Your task to perform on an android device: Go to Maps Image 0: 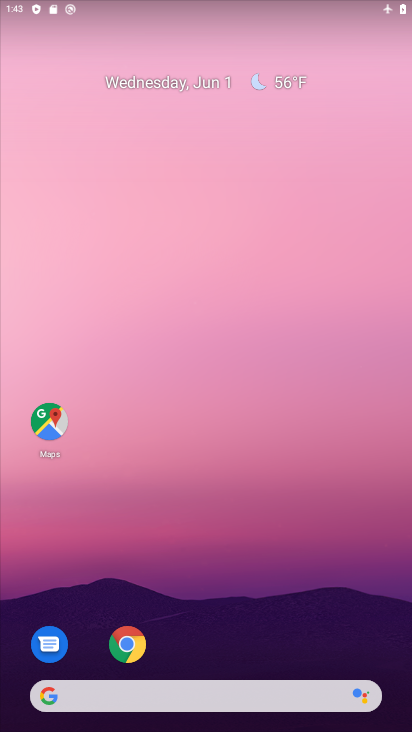
Step 0: drag from (243, 402) to (181, 0)
Your task to perform on an android device: Go to Maps Image 1: 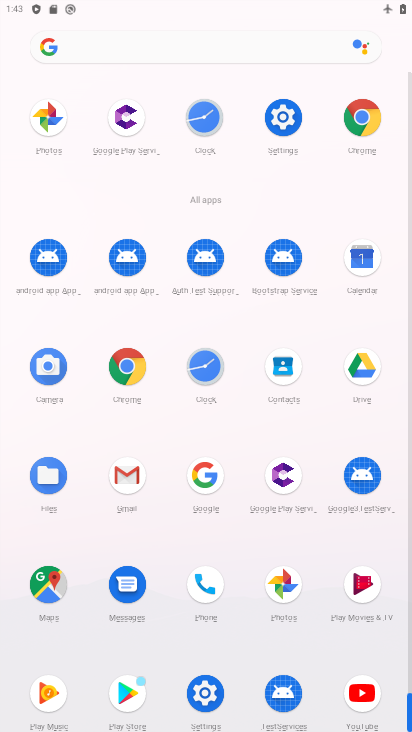
Step 1: drag from (12, 540) to (10, 153)
Your task to perform on an android device: Go to Maps Image 2: 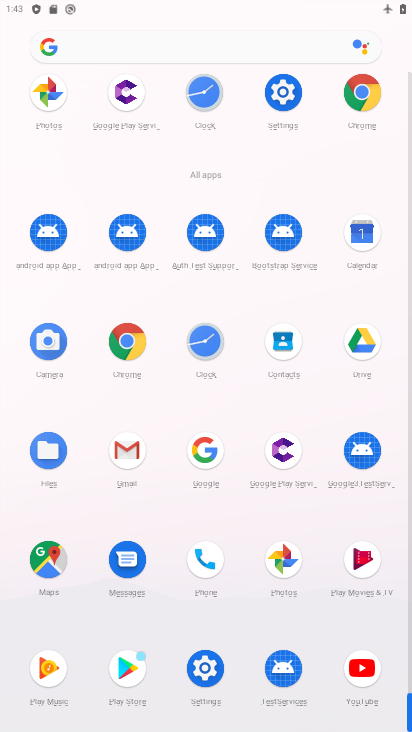
Step 2: click (49, 553)
Your task to perform on an android device: Go to Maps Image 3: 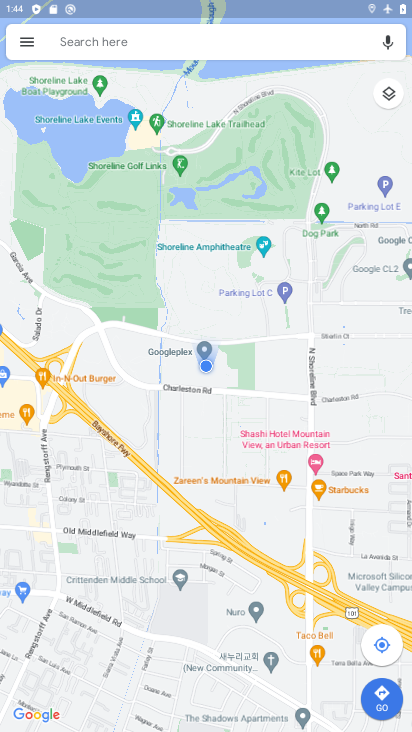
Step 3: task complete